Your task to perform on an android device: toggle pop-ups in chrome Image 0: 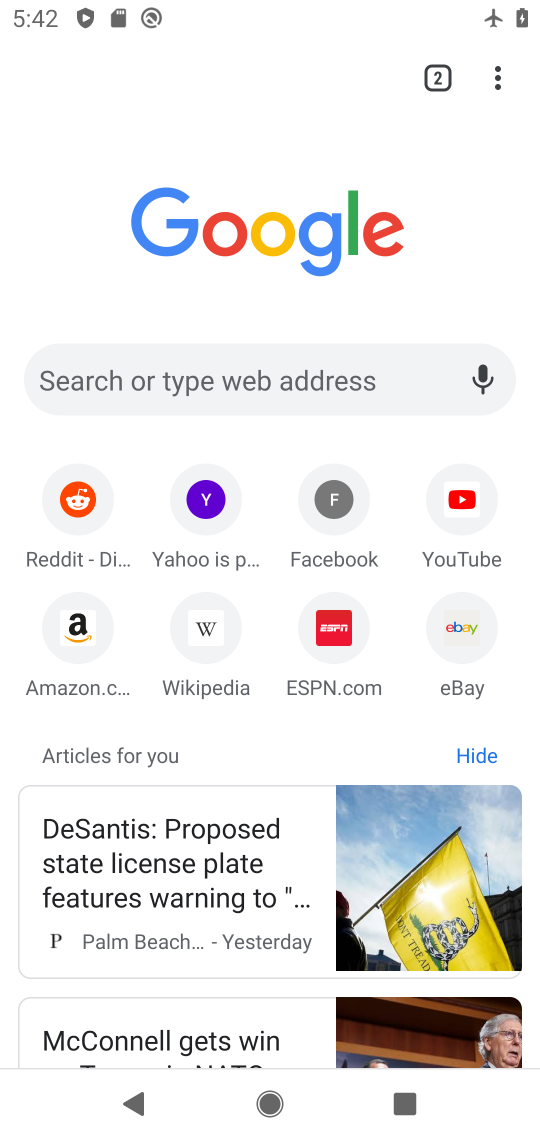
Step 0: click (506, 82)
Your task to perform on an android device: toggle pop-ups in chrome Image 1: 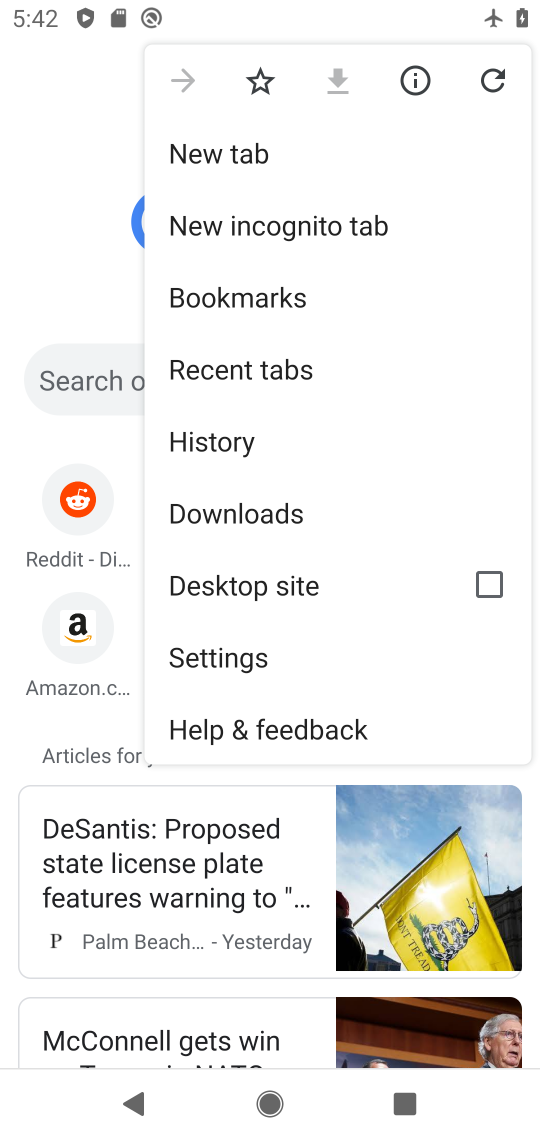
Step 1: click (282, 662)
Your task to perform on an android device: toggle pop-ups in chrome Image 2: 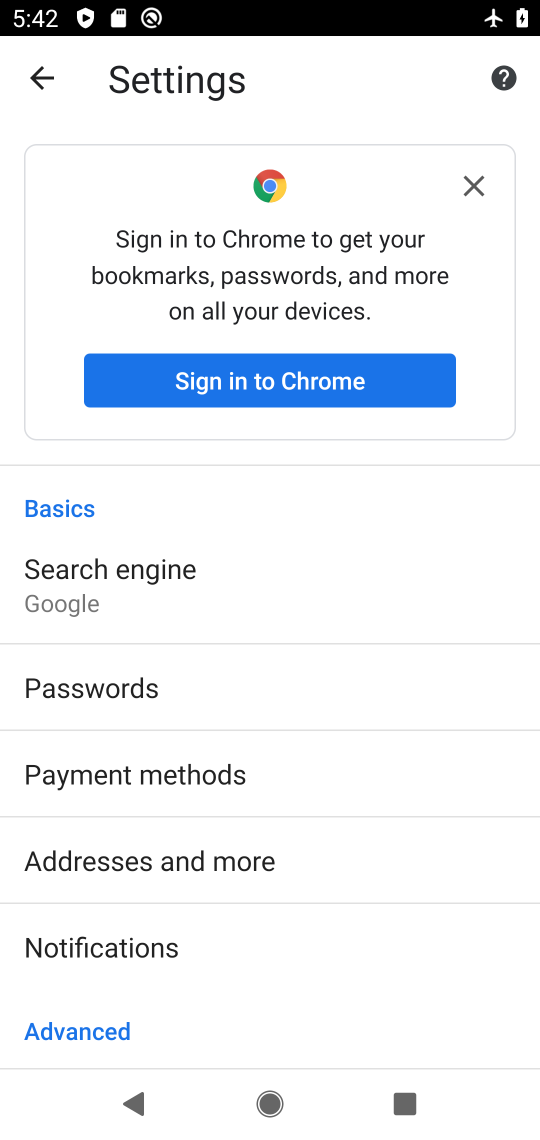
Step 2: drag from (285, 970) to (228, 0)
Your task to perform on an android device: toggle pop-ups in chrome Image 3: 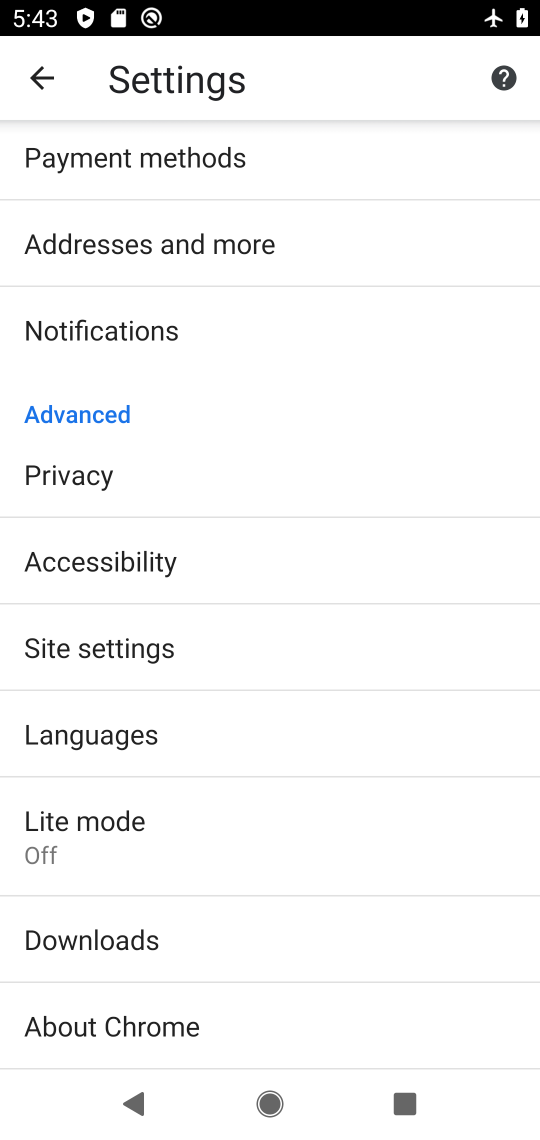
Step 3: click (232, 654)
Your task to perform on an android device: toggle pop-ups in chrome Image 4: 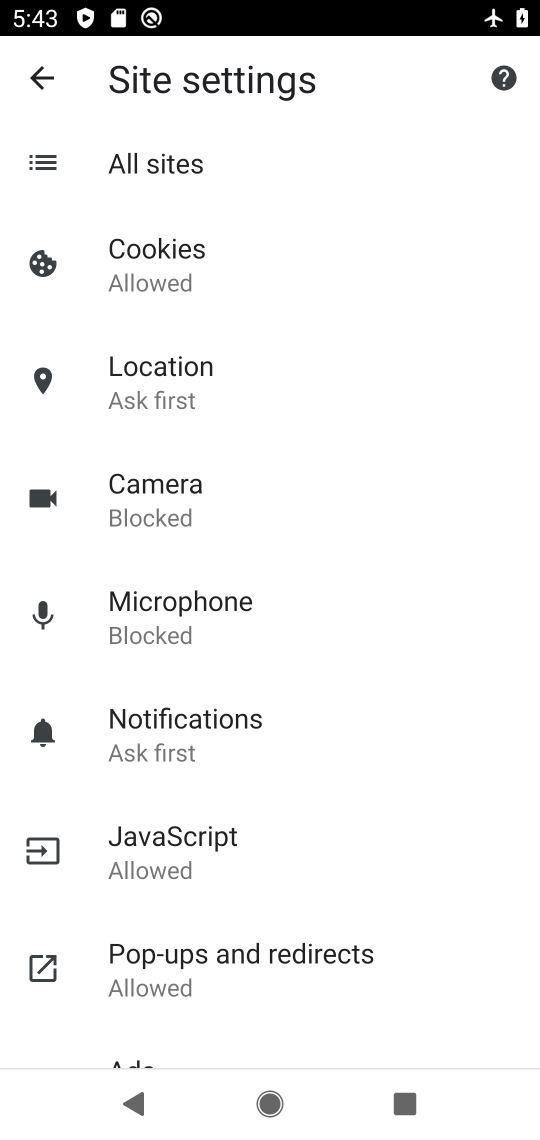
Step 4: click (304, 968)
Your task to perform on an android device: toggle pop-ups in chrome Image 5: 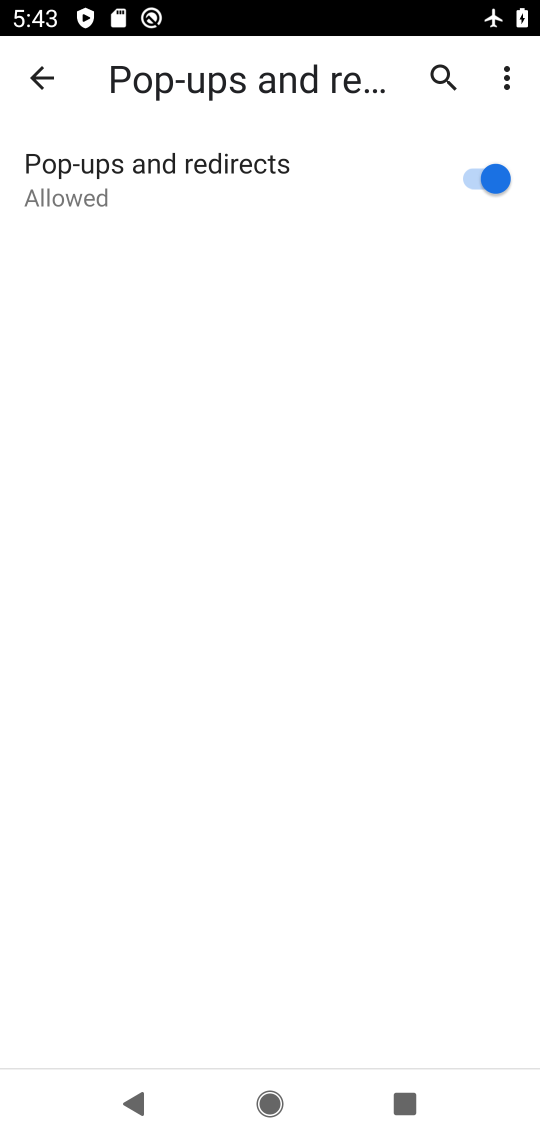
Step 5: click (492, 164)
Your task to perform on an android device: toggle pop-ups in chrome Image 6: 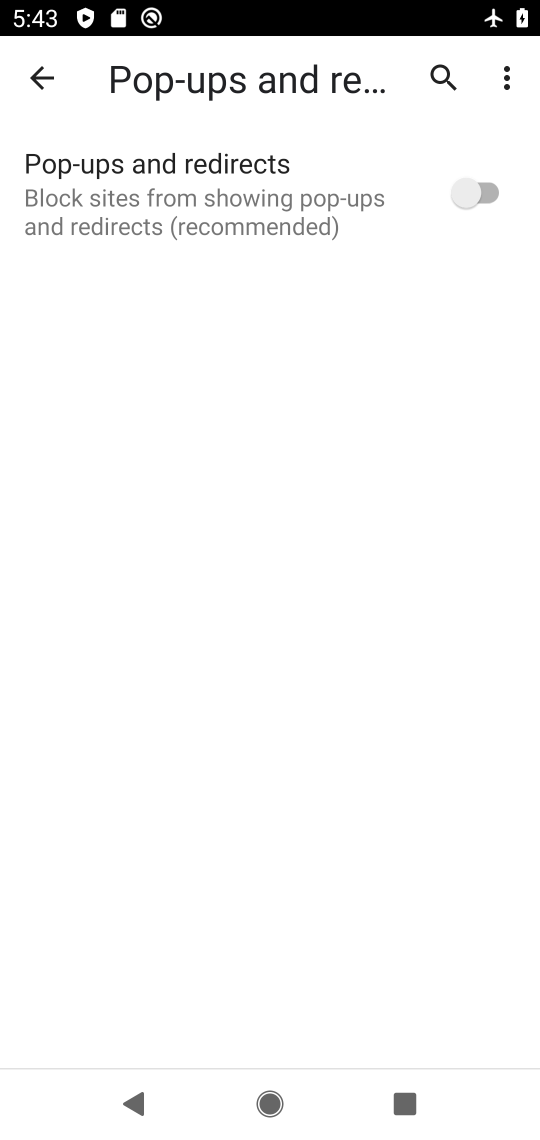
Step 6: task complete